Your task to perform on an android device: When is my next appointment? Image 0: 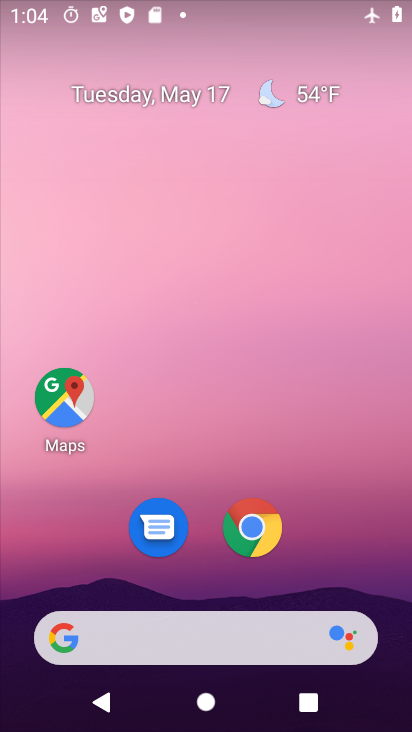
Step 0: drag from (243, 654) to (275, 104)
Your task to perform on an android device: When is my next appointment? Image 1: 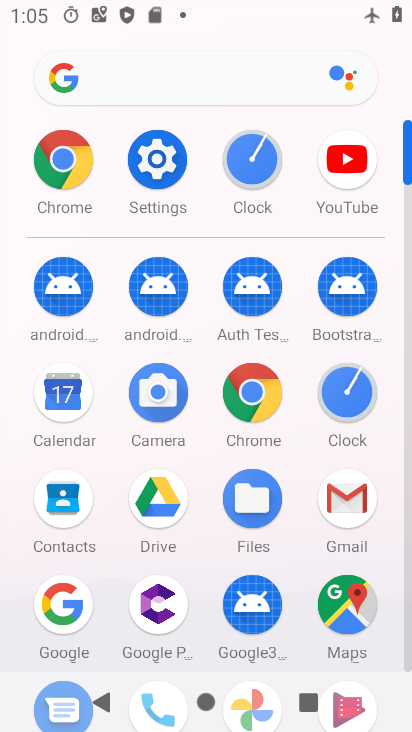
Step 1: click (62, 410)
Your task to perform on an android device: When is my next appointment? Image 2: 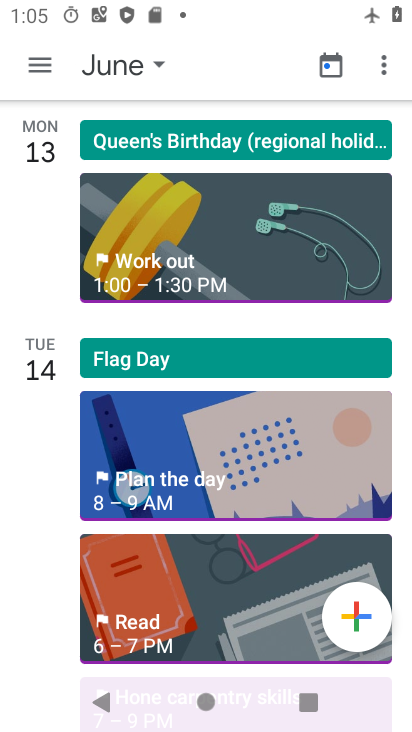
Step 2: task complete